Your task to perform on an android device: change the clock display to show seconds Image 0: 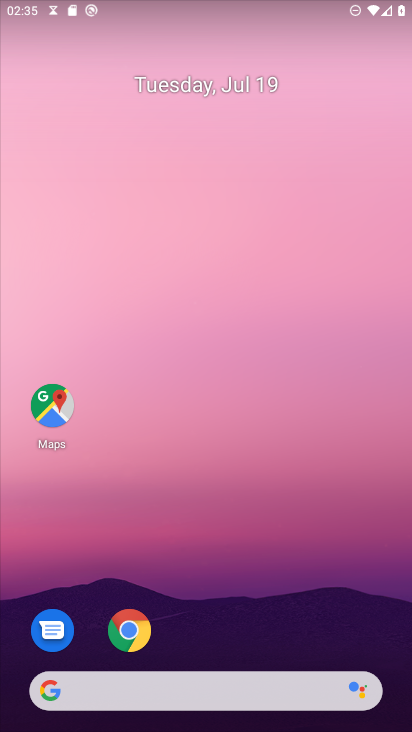
Step 0: drag from (204, 686) to (376, 149)
Your task to perform on an android device: change the clock display to show seconds Image 1: 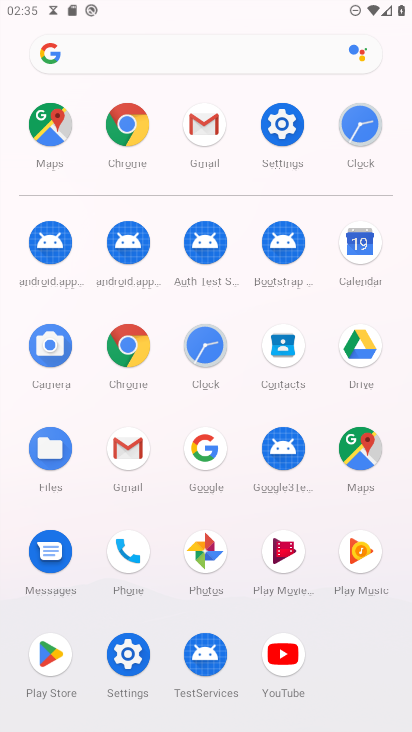
Step 1: click (203, 342)
Your task to perform on an android device: change the clock display to show seconds Image 2: 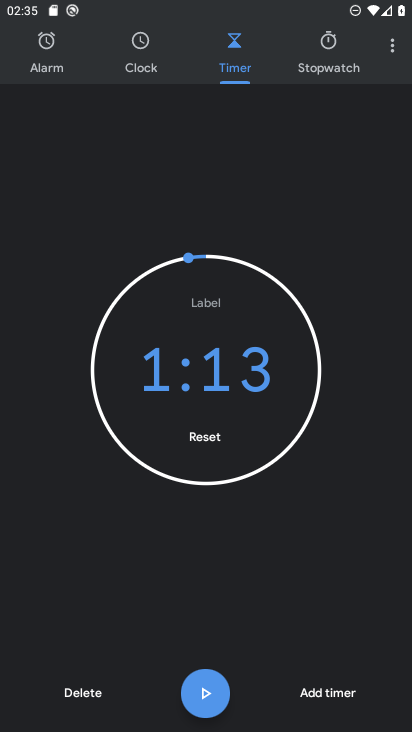
Step 2: click (389, 51)
Your task to perform on an android device: change the clock display to show seconds Image 3: 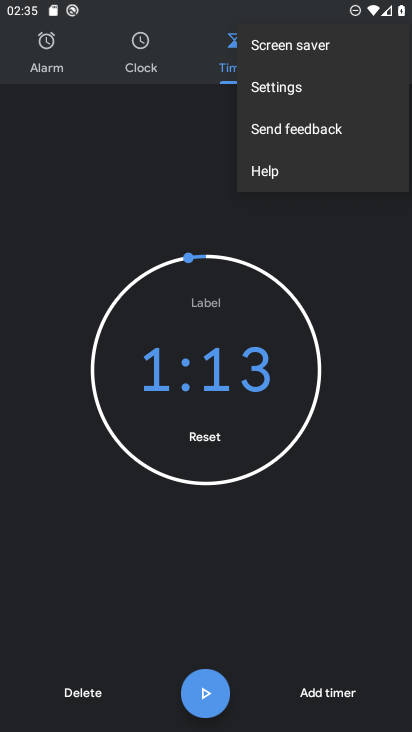
Step 3: click (287, 82)
Your task to perform on an android device: change the clock display to show seconds Image 4: 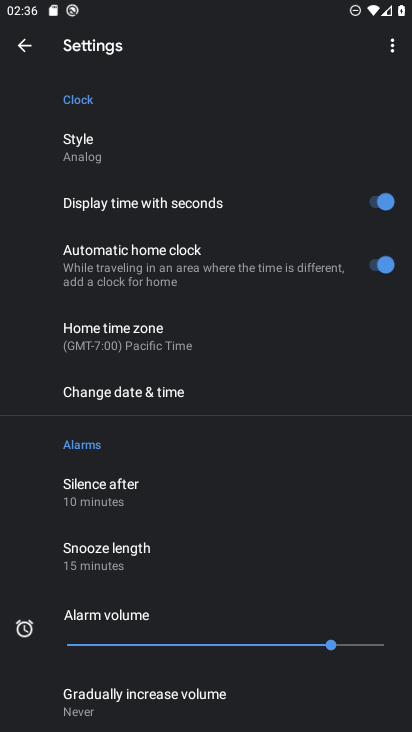
Step 4: task complete